Your task to perform on an android device: open app "Walmart Shopping & Grocery" (install if not already installed) and enter user name: "Hans@icloud.com" and password: "executing" Image 0: 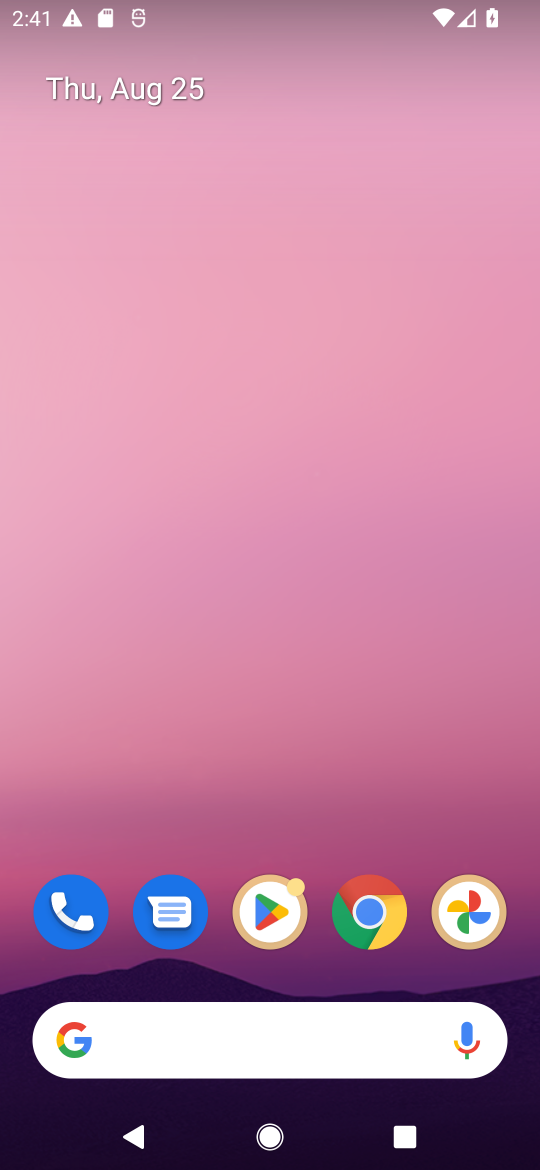
Step 0: drag from (246, 895) to (263, 350)
Your task to perform on an android device: open app "Walmart Shopping & Grocery" (install if not already installed) and enter user name: "Hans@icloud.com" and password: "executing" Image 1: 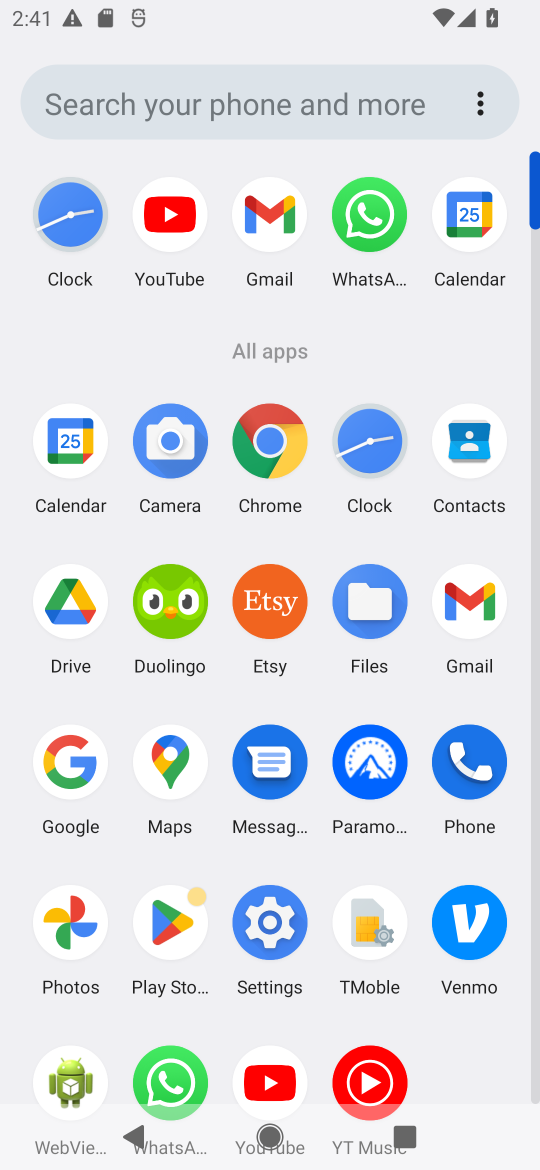
Step 1: click (159, 937)
Your task to perform on an android device: open app "Walmart Shopping & Grocery" (install if not already installed) and enter user name: "Hans@icloud.com" and password: "executing" Image 2: 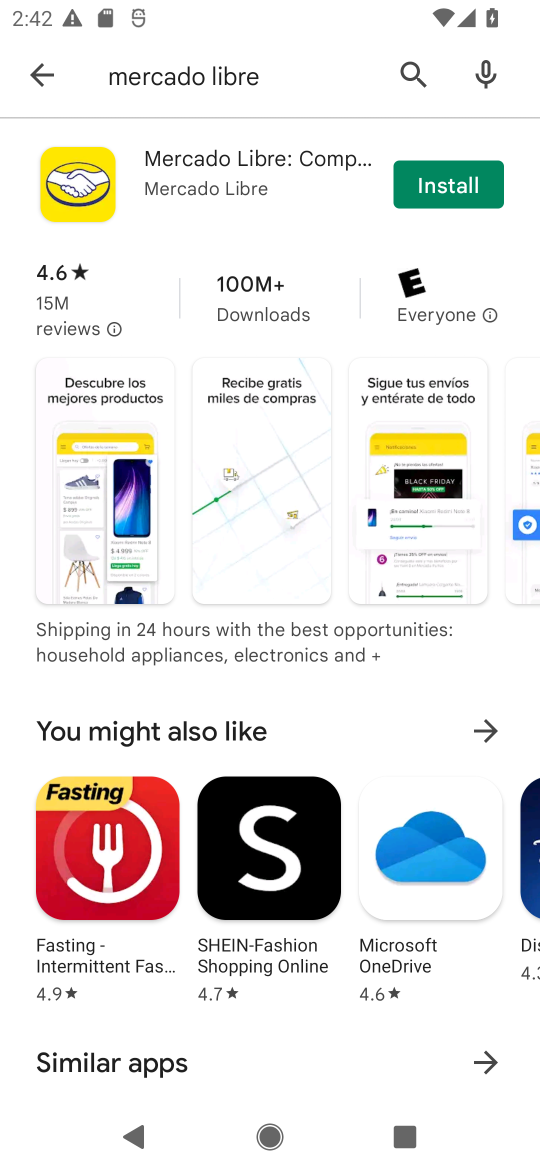
Step 2: click (410, 66)
Your task to perform on an android device: open app "Walmart Shopping & Grocery" (install if not already installed) and enter user name: "Hans@icloud.com" and password: "executing" Image 3: 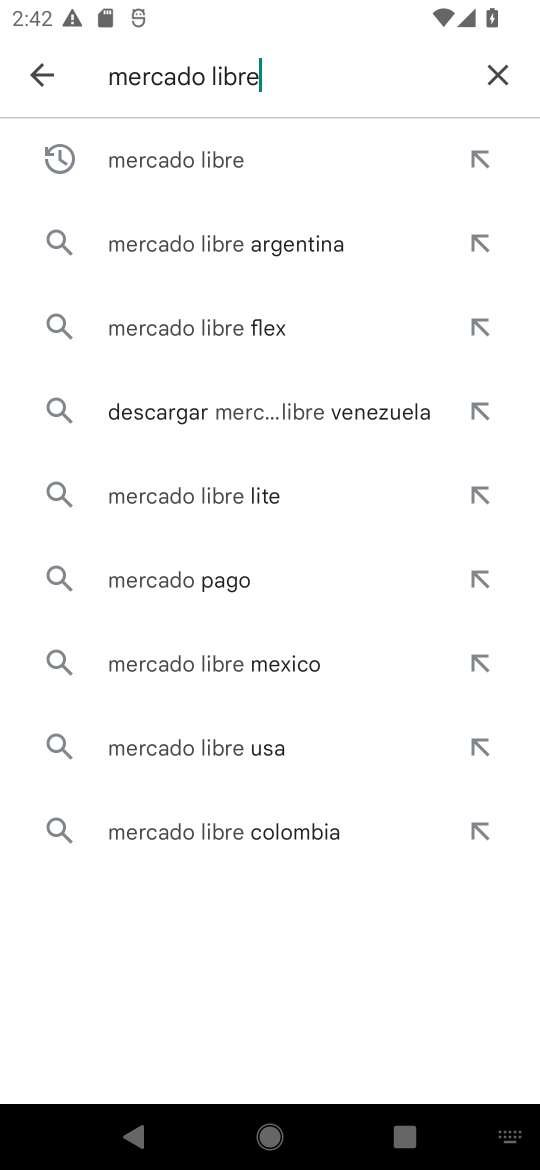
Step 3: click (488, 72)
Your task to perform on an android device: open app "Walmart Shopping & Grocery" (install if not already installed) and enter user name: "Hans@icloud.com" and password: "executing" Image 4: 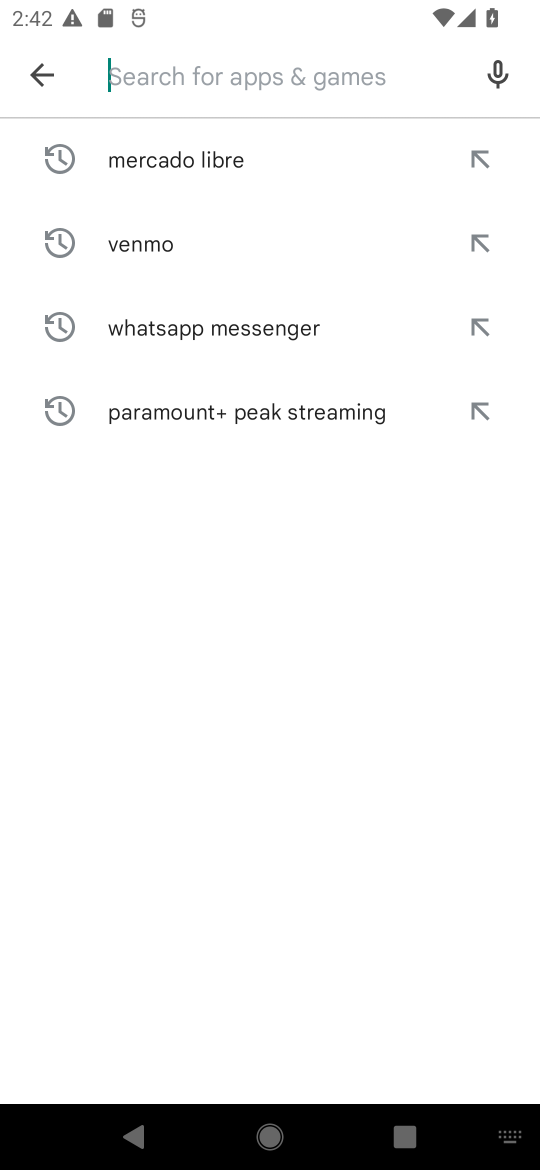
Step 4: type "Walmart Shopping & Grocery"
Your task to perform on an android device: open app "Walmart Shopping & Grocery" (install if not already installed) and enter user name: "Hans@icloud.com" and password: "executing" Image 5: 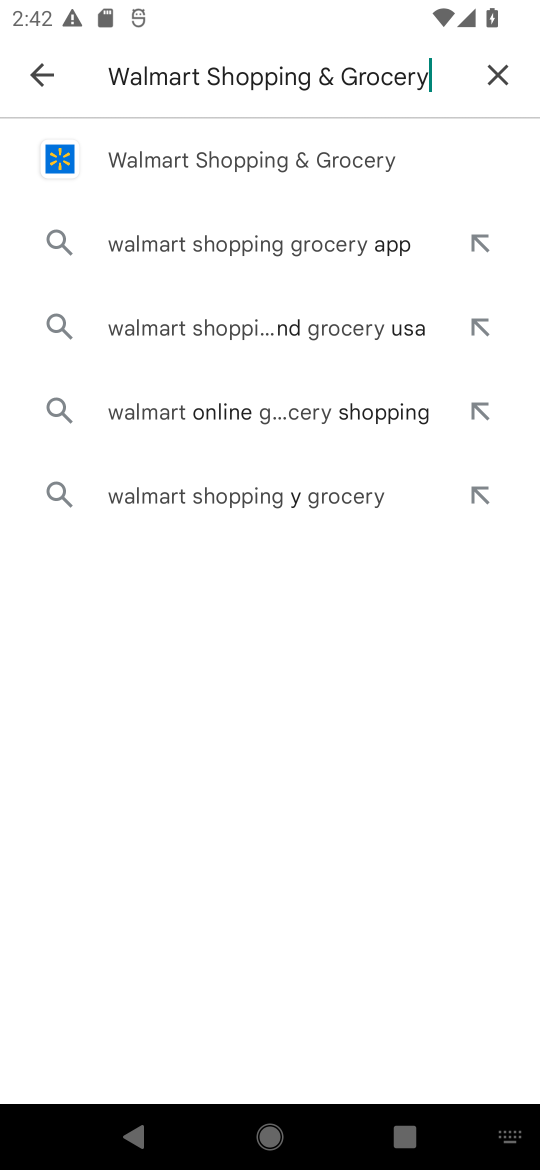
Step 5: click (242, 172)
Your task to perform on an android device: open app "Walmart Shopping & Grocery" (install if not already installed) and enter user name: "Hans@icloud.com" and password: "executing" Image 6: 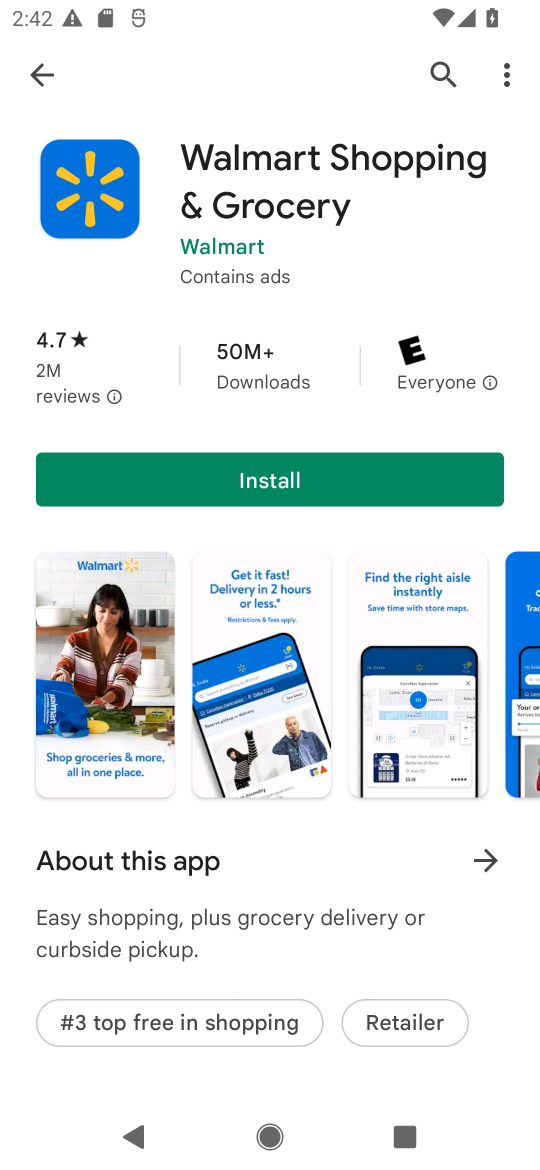
Step 6: click (255, 459)
Your task to perform on an android device: open app "Walmart Shopping & Grocery" (install if not already installed) and enter user name: "Hans@icloud.com" and password: "executing" Image 7: 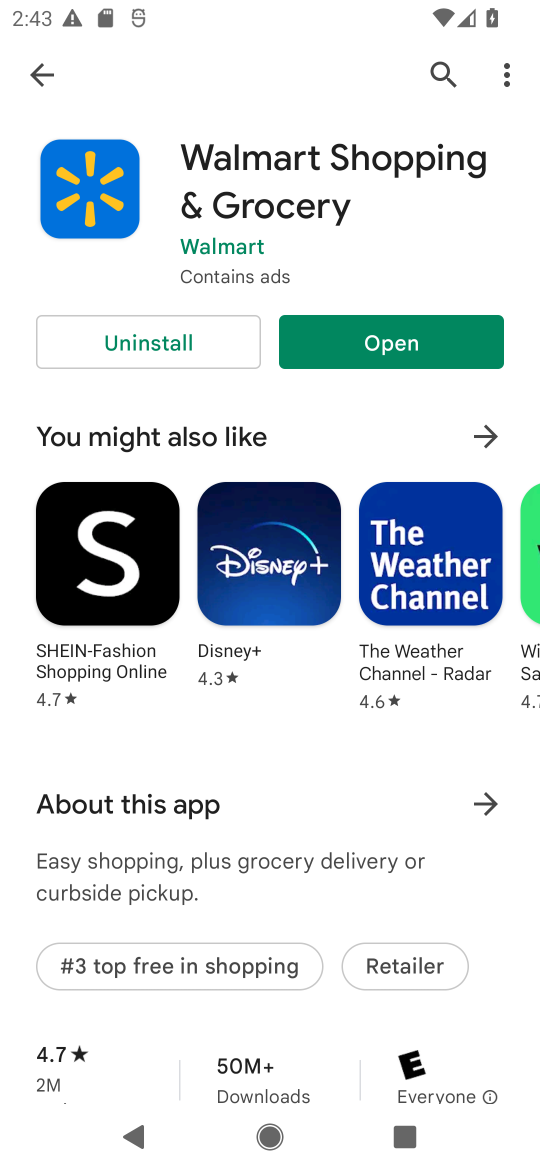
Step 7: click (316, 350)
Your task to perform on an android device: open app "Walmart Shopping & Grocery" (install if not already installed) and enter user name: "Hans@icloud.com" and password: "executing" Image 8: 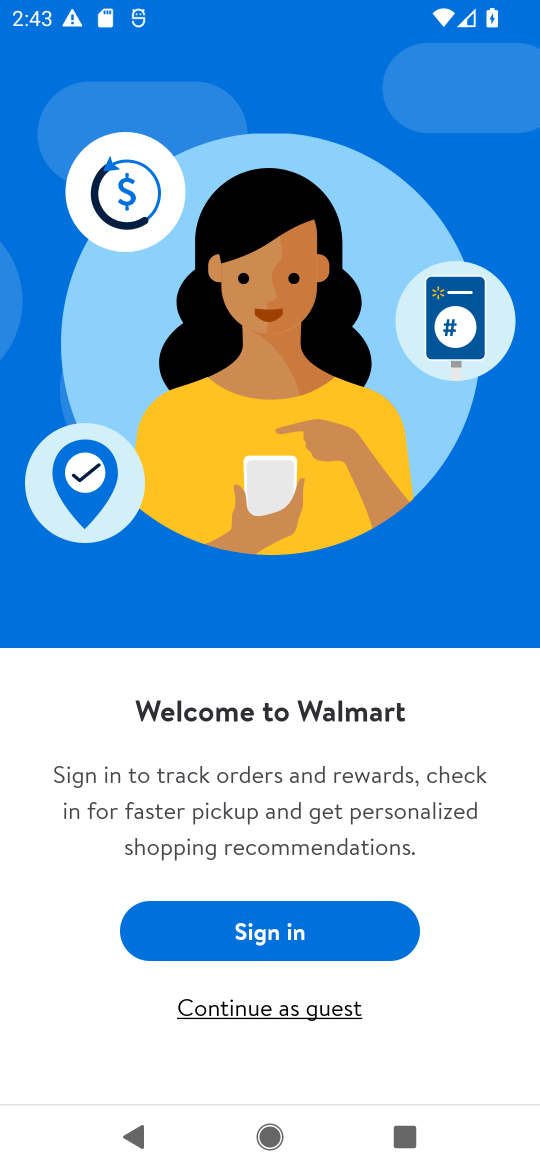
Step 8: click (204, 928)
Your task to perform on an android device: open app "Walmart Shopping & Grocery" (install if not already installed) and enter user name: "Hans@icloud.com" and password: "executing" Image 9: 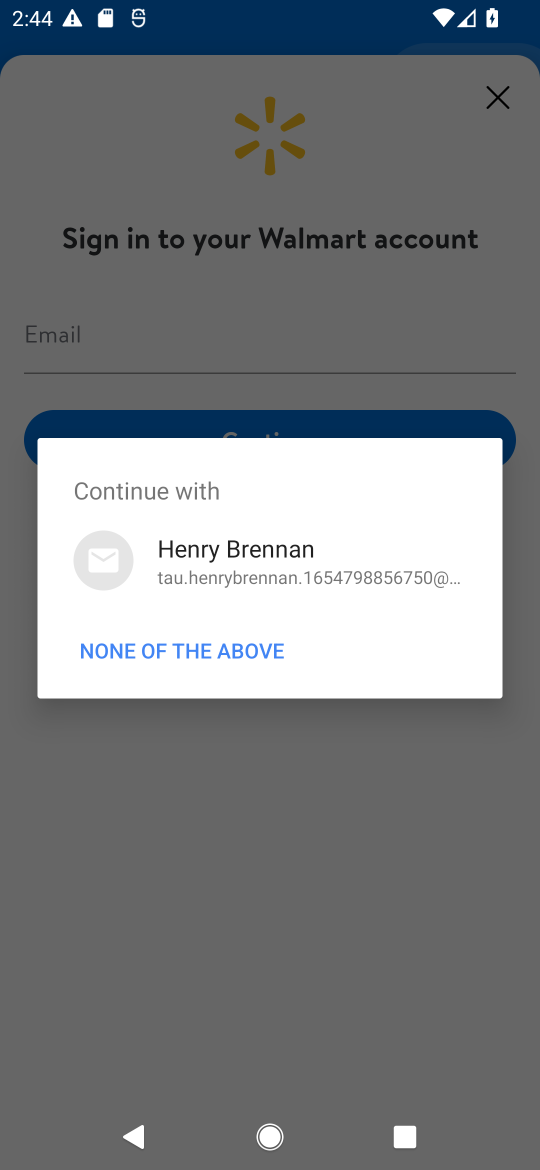
Step 9: click (177, 641)
Your task to perform on an android device: open app "Walmart Shopping & Grocery" (install if not already installed) and enter user name: "Hans@icloud.com" and password: "executing" Image 10: 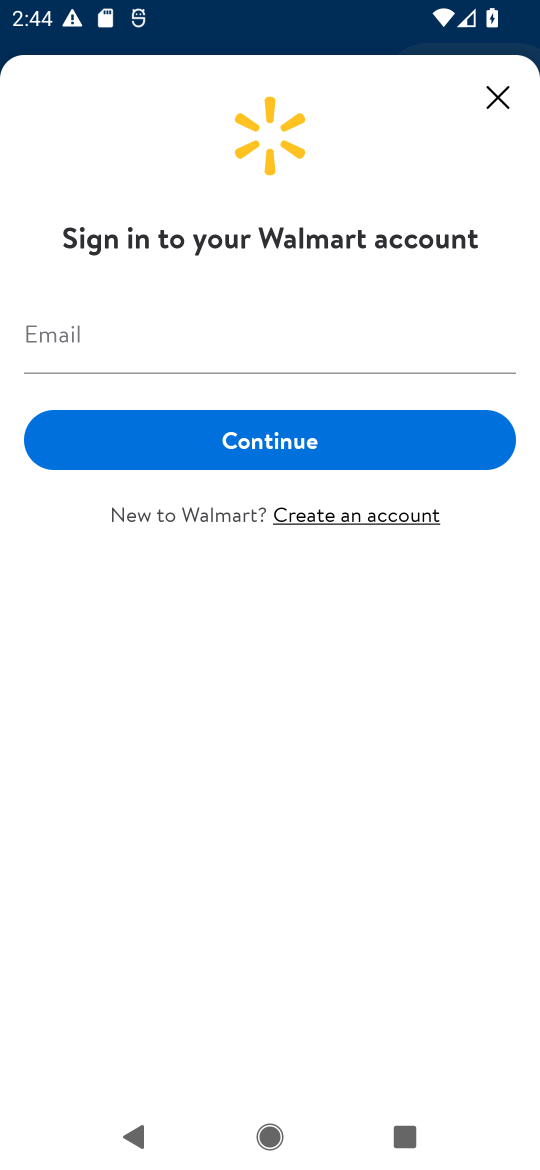
Step 10: click (106, 329)
Your task to perform on an android device: open app "Walmart Shopping & Grocery" (install if not already installed) and enter user name: "Hans@icloud.com" and password: "executing" Image 11: 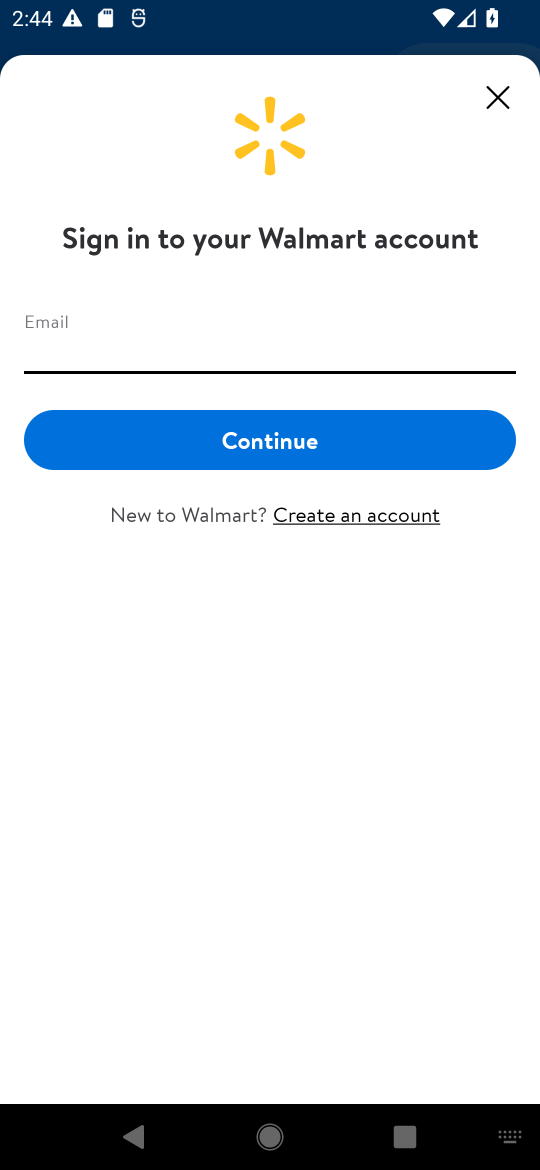
Step 11: type "Hans@icloud.com"
Your task to perform on an android device: open app "Walmart Shopping & Grocery" (install if not already installed) and enter user name: "Hans@icloud.com" and password: "executing" Image 12: 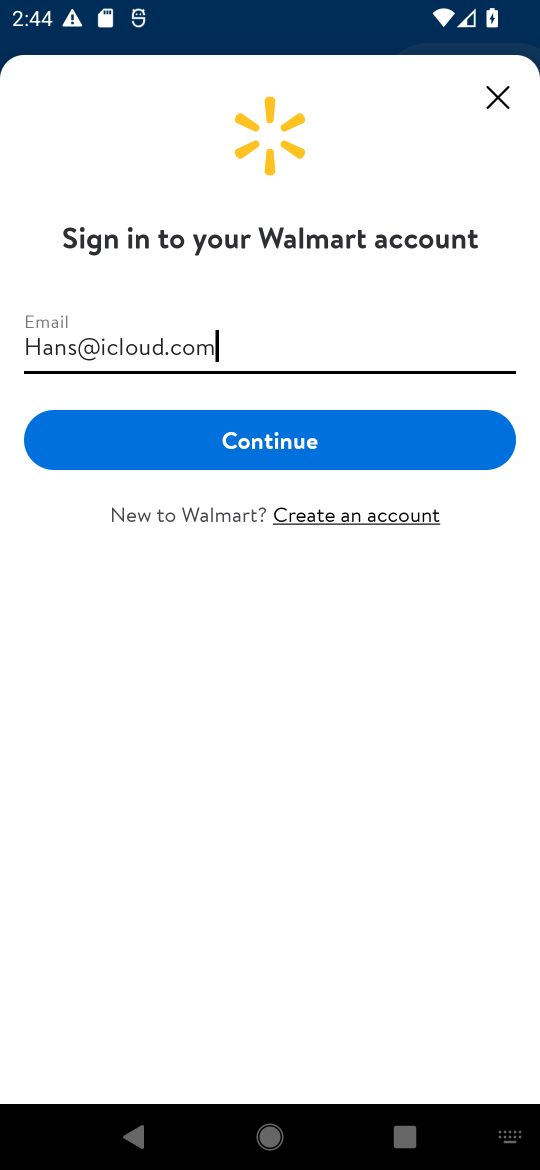
Step 12: click (247, 440)
Your task to perform on an android device: open app "Walmart Shopping & Grocery" (install if not already installed) and enter user name: "Hans@icloud.com" and password: "executing" Image 13: 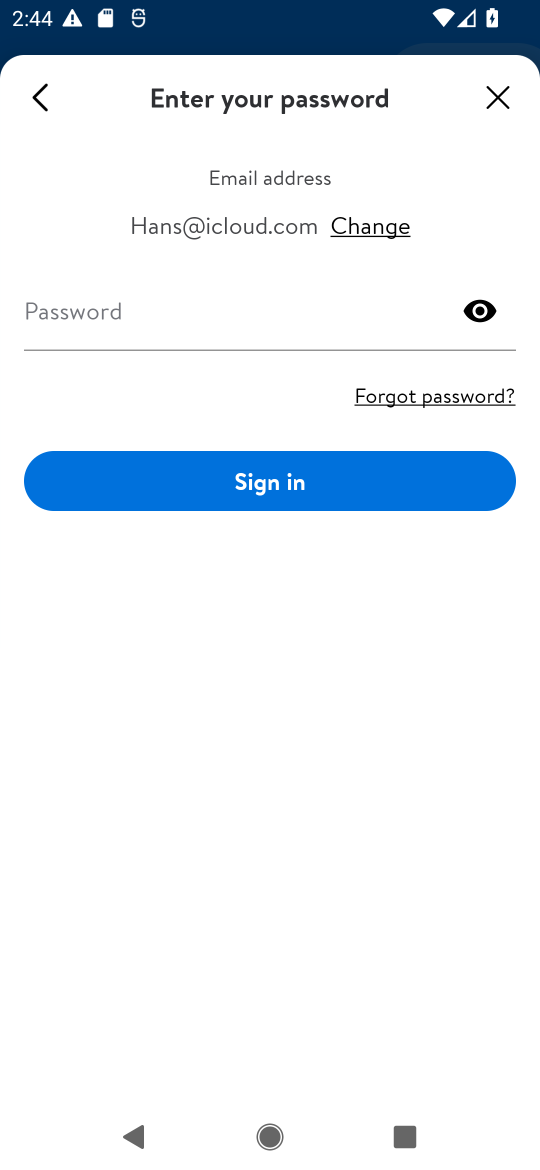
Step 13: click (440, 401)
Your task to perform on an android device: open app "Walmart Shopping & Grocery" (install if not already installed) and enter user name: "Hans@icloud.com" and password: "executing" Image 14: 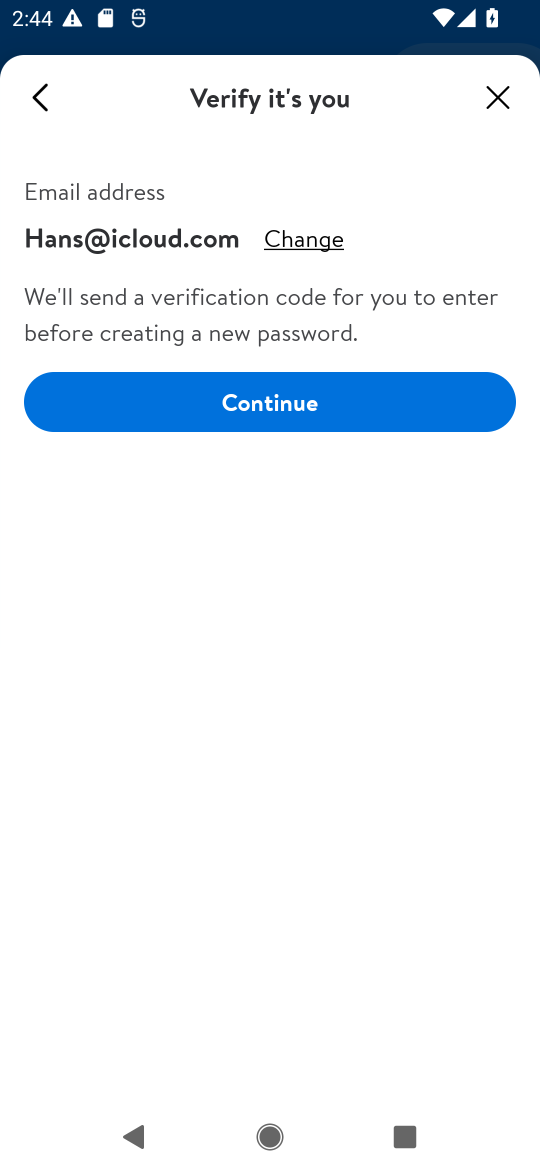
Step 14: task complete